Your task to perform on an android device: What's the price of the Galaxy phone on eBay? Image 0: 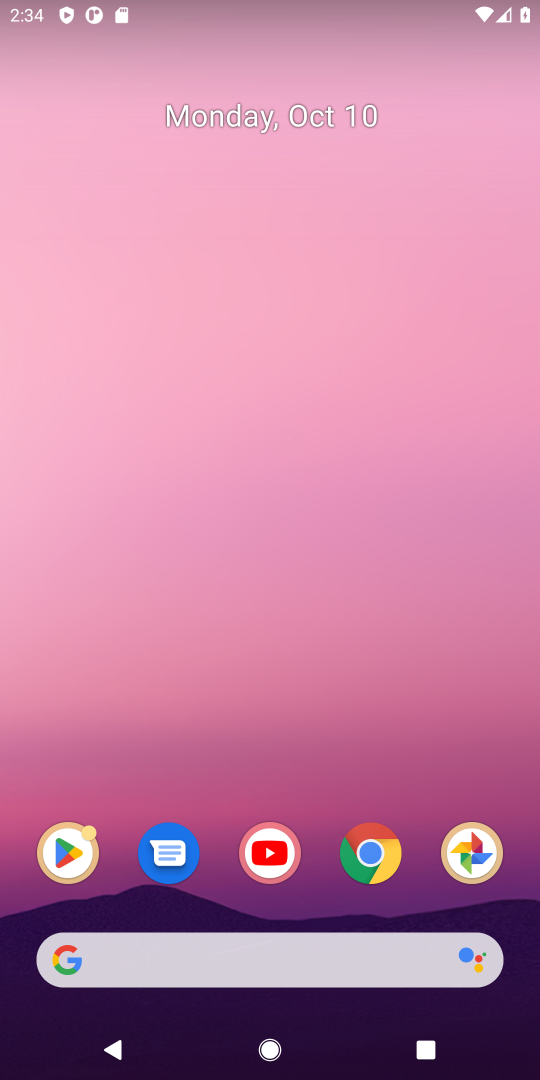
Step 0: click (367, 849)
Your task to perform on an android device: What's the price of the Galaxy phone on eBay? Image 1: 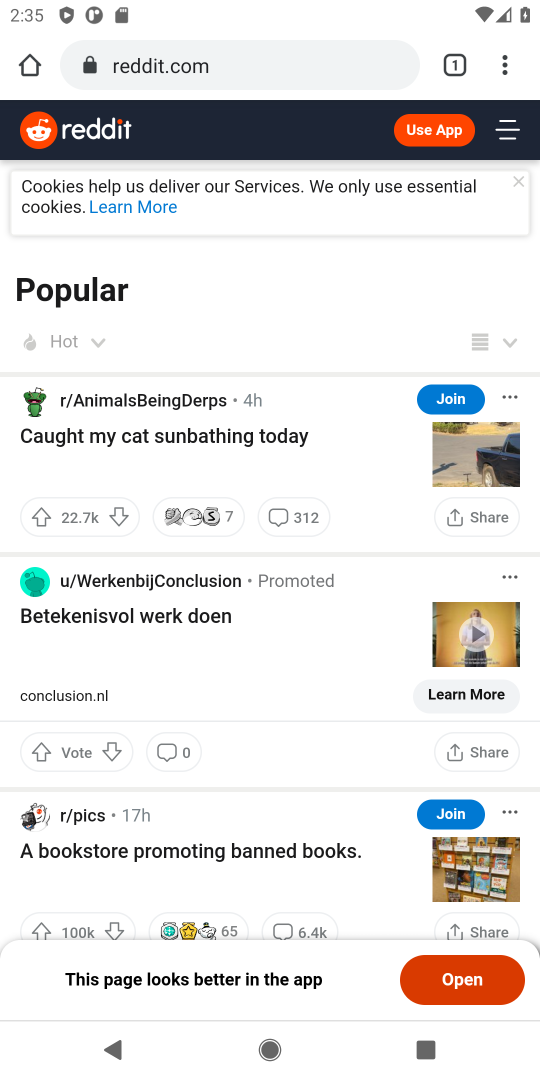
Step 1: click (290, 51)
Your task to perform on an android device: What's the price of the Galaxy phone on eBay? Image 2: 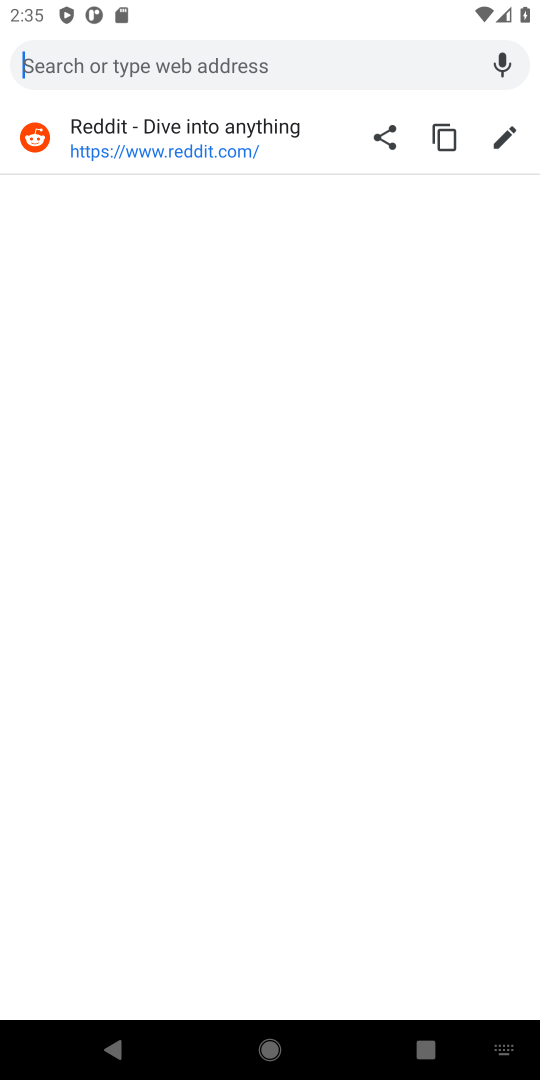
Step 2: type "price of galaxy phone on ebay"
Your task to perform on an android device: What's the price of the Galaxy phone on eBay? Image 3: 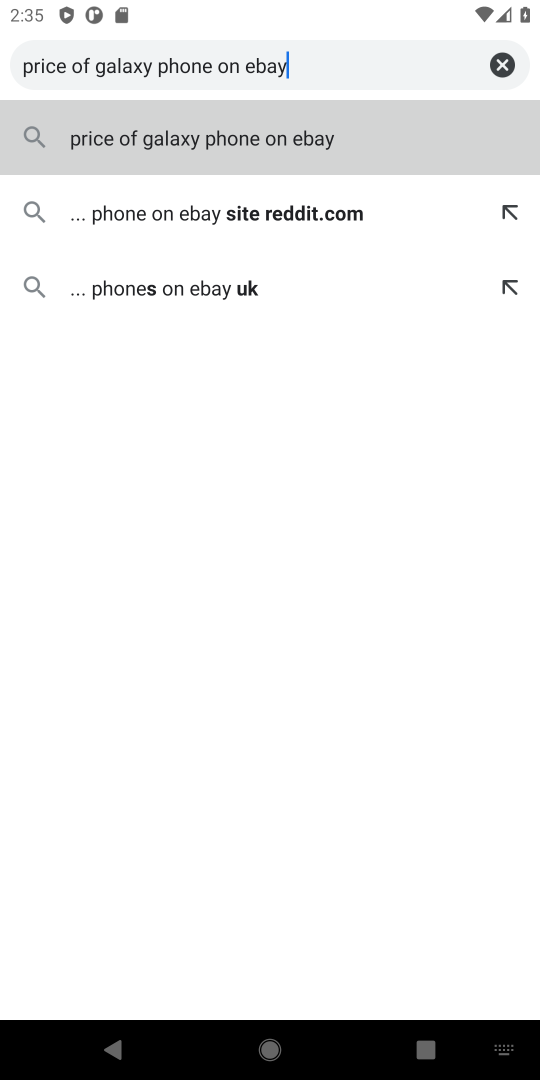
Step 3: click (243, 149)
Your task to perform on an android device: What's the price of the Galaxy phone on eBay? Image 4: 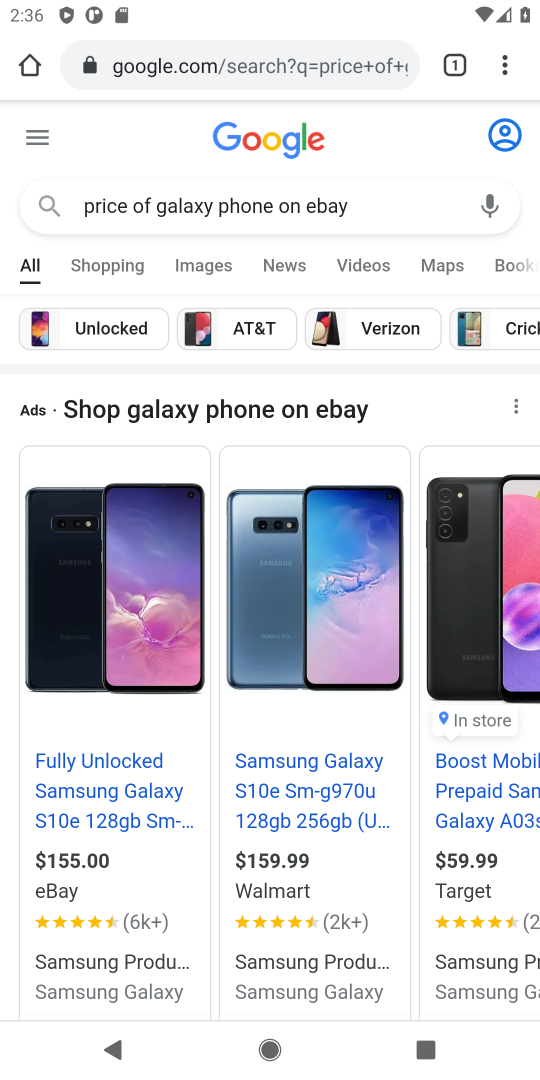
Step 4: drag from (302, 912) to (257, 495)
Your task to perform on an android device: What's the price of the Galaxy phone on eBay? Image 5: 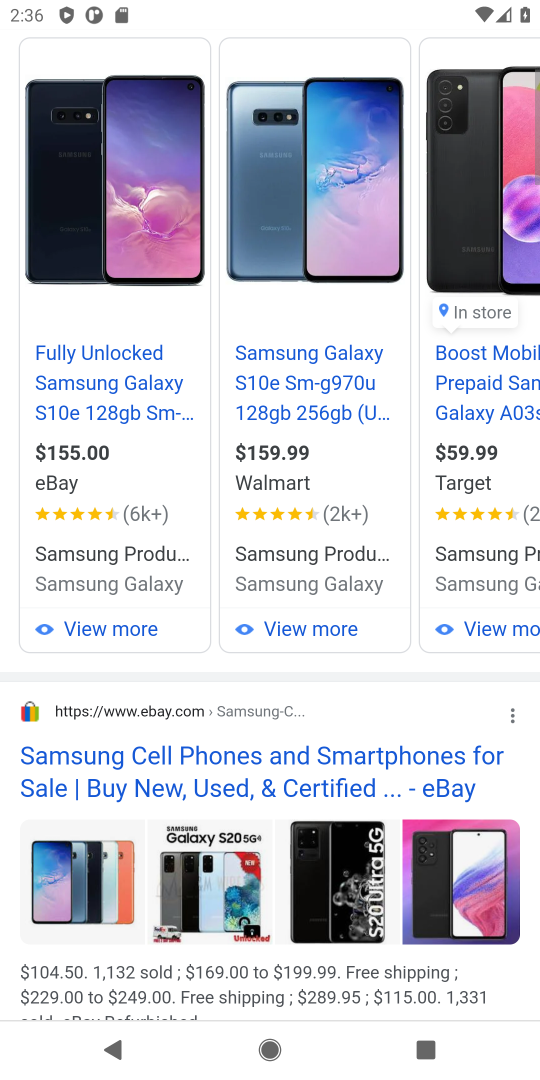
Step 5: click (252, 766)
Your task to perform on an android device: What's the price of the Galaxy phone on eBay? Image 6: 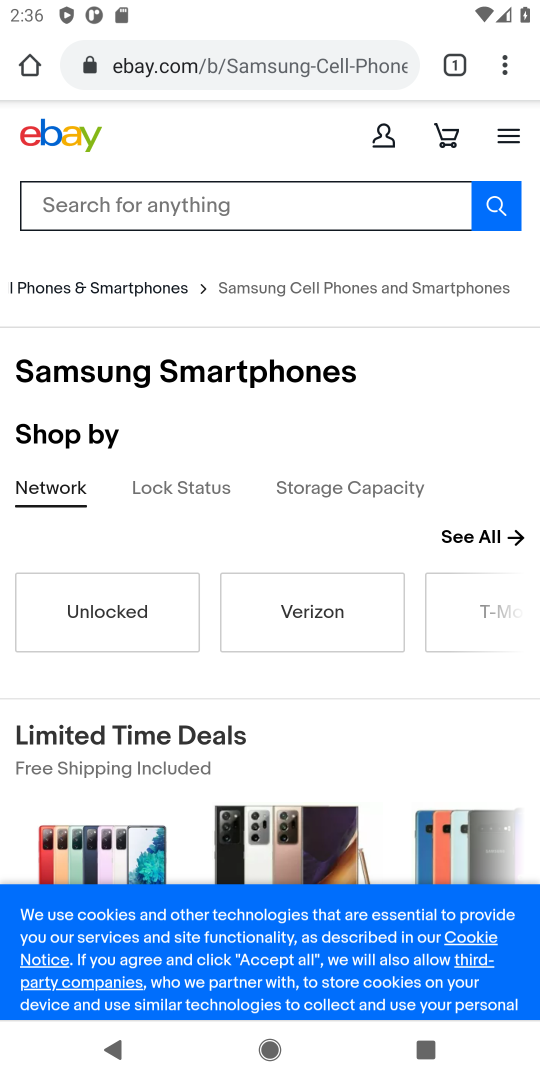
Step 6: drag from (390, 751) to (392, 376)
Your task to perform on an android device: What's the price of the Galaxy phone on eBay? Image 7: 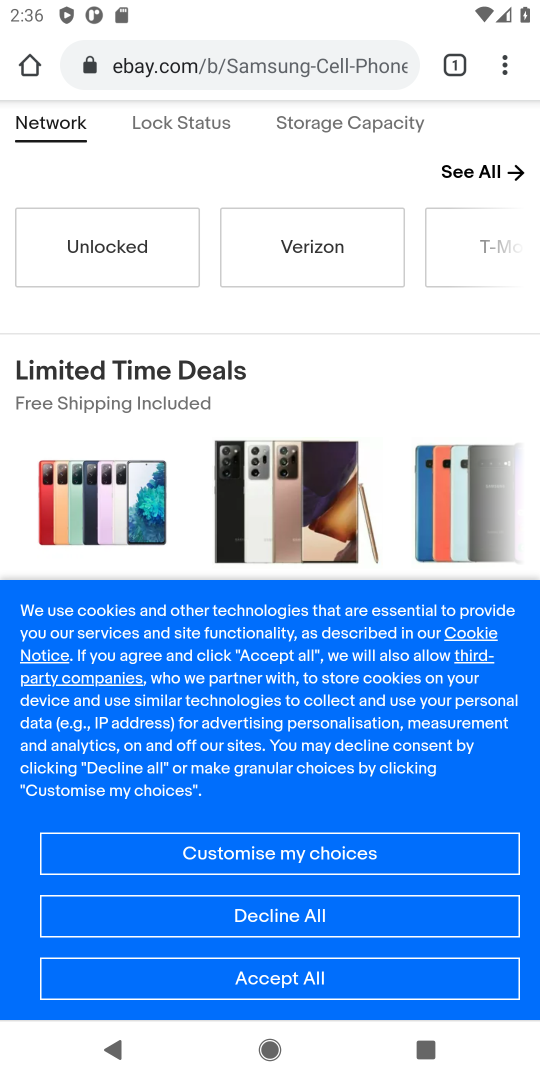
Step 7: click (311, 991)
Your task to perform on an android device: What's the price of the Galaxy phone on eBay? Image 8: 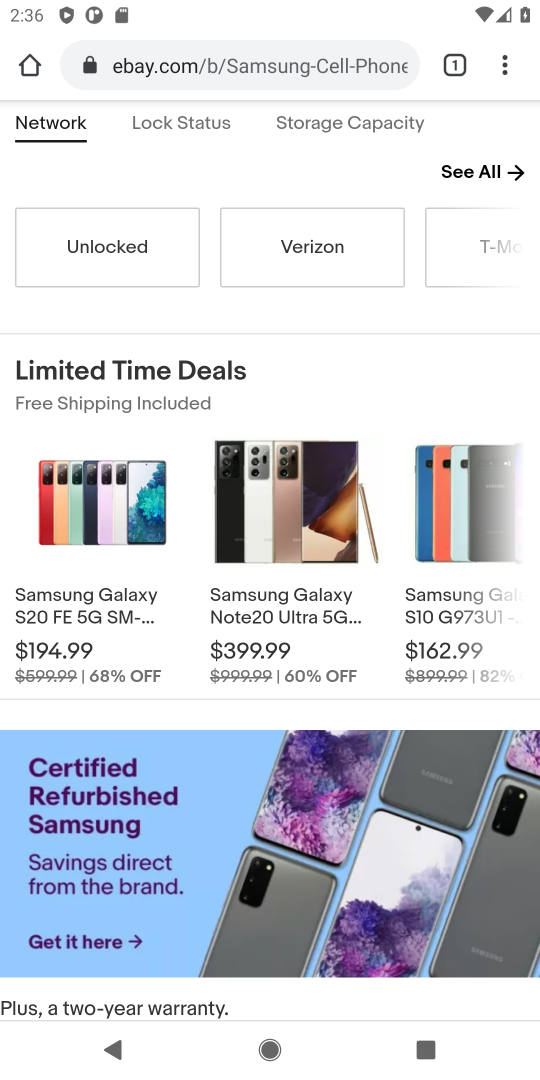
Step 8: task complete